Your task to perform on an android device: toggle location history Image 0: 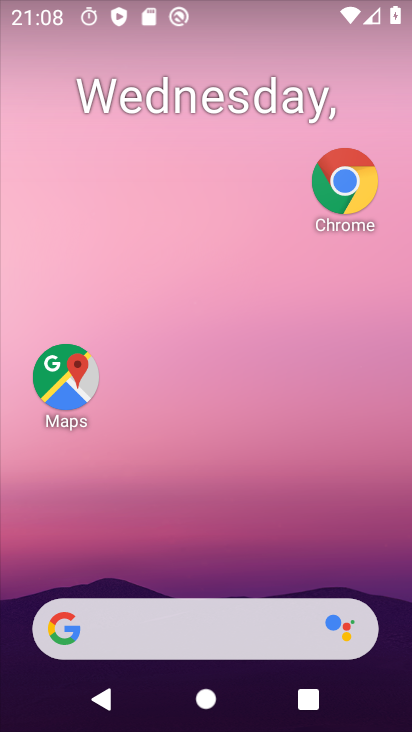
Step 0: drag from (244, 666) to (266, 210)
Your task to perform on an android device: toggle location history Image 1: 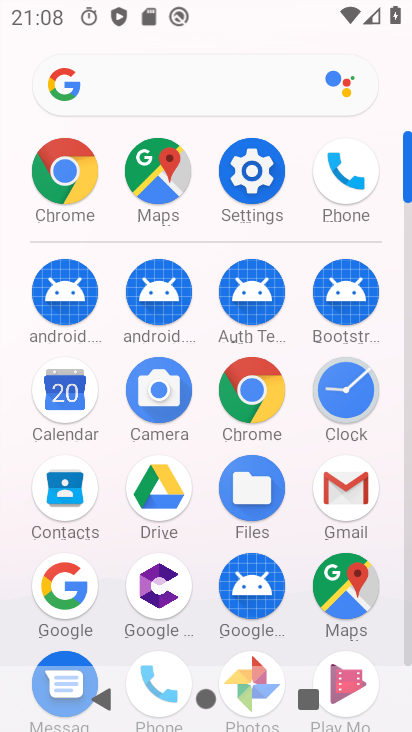
Step 1: click (246, 197)
Your task to perform on an android device: toggle location history Image 2: 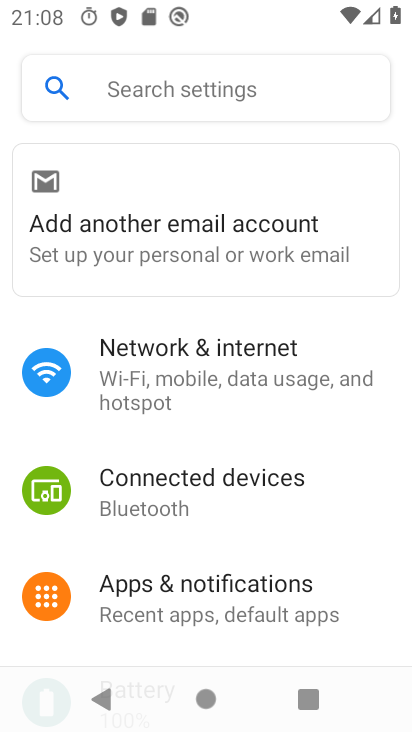
Step 2: click (197, 106)
Your task to perform on an android device: toggle location history Image 3: 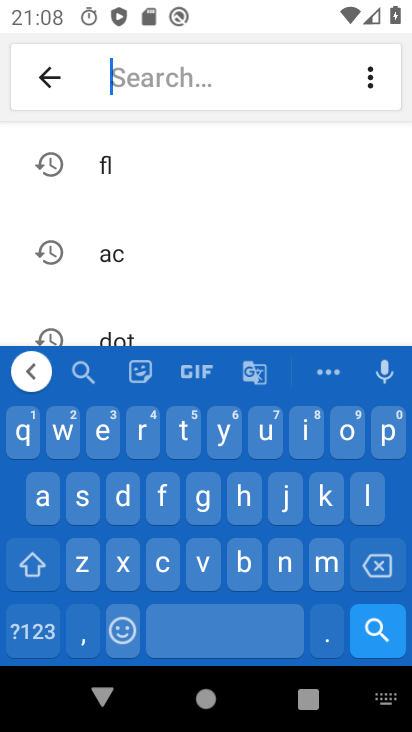
Step 3: click (365, 500)
Your task to perform on an android device: toggle location history Image 4: 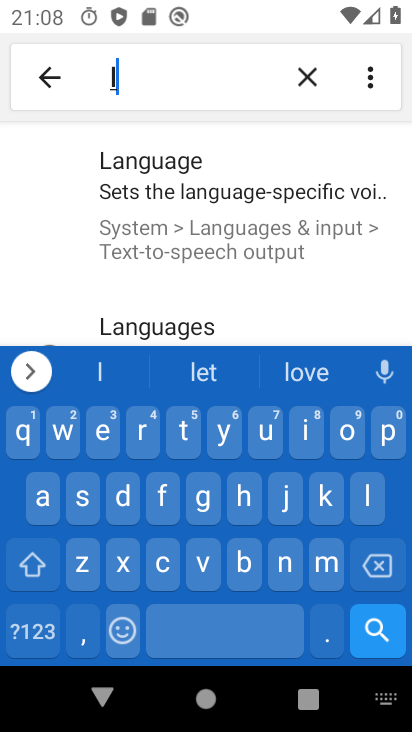
Step 4: click (350, 435)
Your task to perform on an android device: toggle location history Image 5: 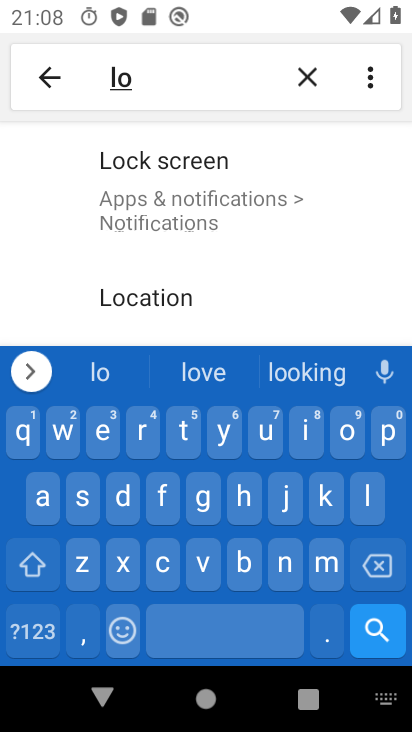
Step 5: click (163, 568)
Your task to perform on an android device: toggle location history Image 6: 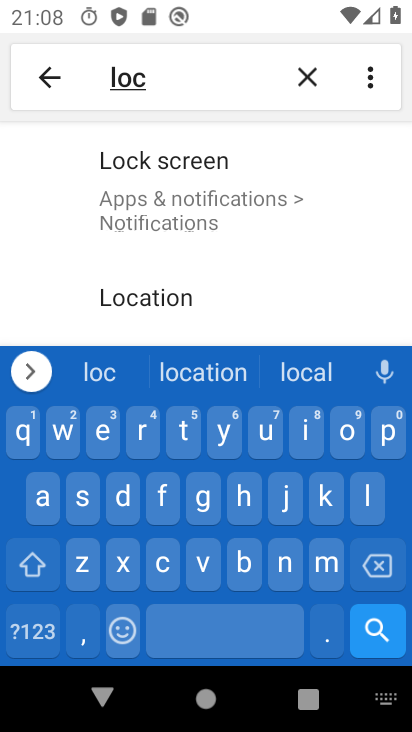
Step 6: click (39, 507)
Your task to perform on an android device: toggle location history Image 7: 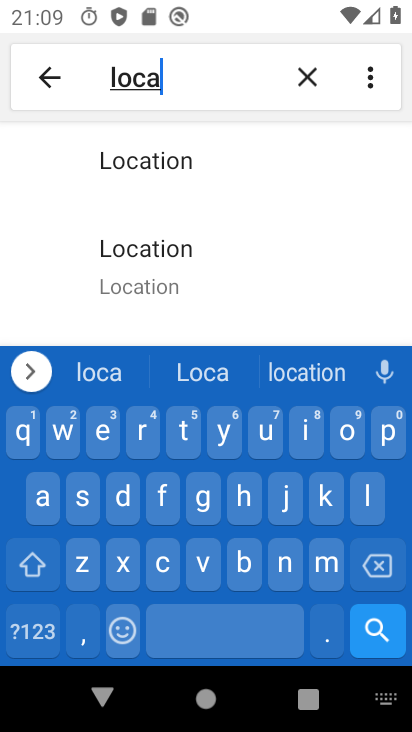
Step 7: click (144, 272)
Your task to perform on an android device: toggle location history Image 8: 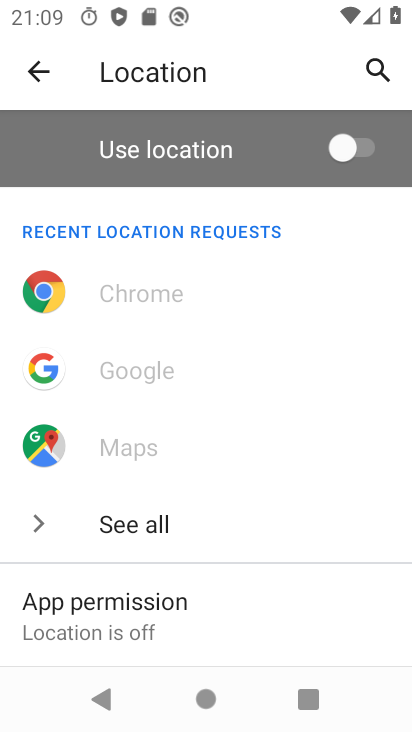
Step 8: drag from (157, 579) to (212, 292)
Your task to perform on an android device: toggle location history Image 9: 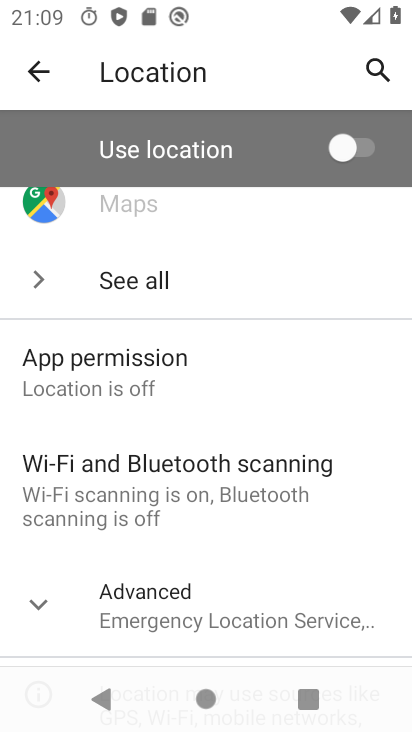
Step 9: click (81, 611)
Your task to perform on an android device: toggle location history Image 10: 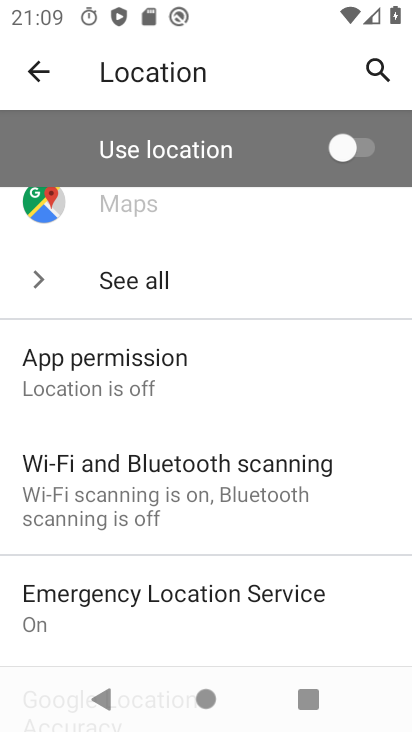
Step 10: task complete